Your task to perform on an android device: change the clock display to show seconds Image 0: 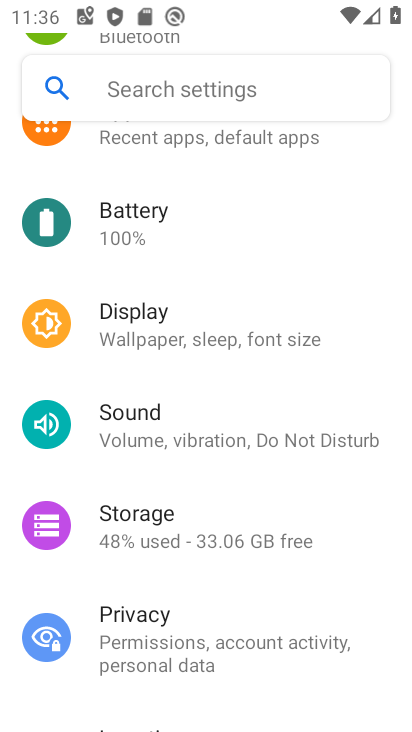
Step 0: press home button
Your task to perform on an android device: change the clock display to show seconds Image 1: 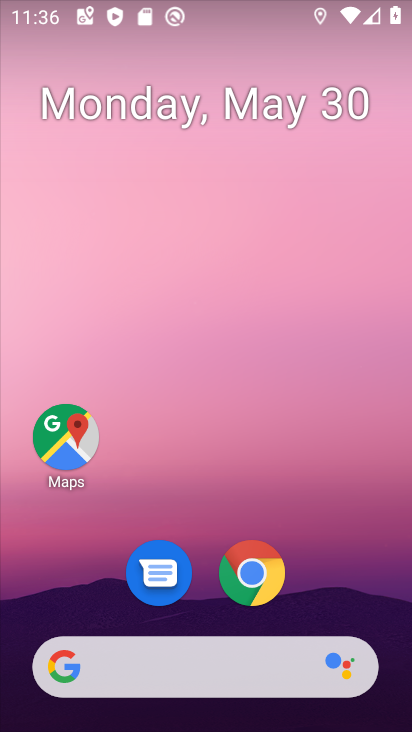
Step 1: drag from (337, 36) to (399, 277)
Your task to perform on an android device: change the clock display to show seconds Image 2: 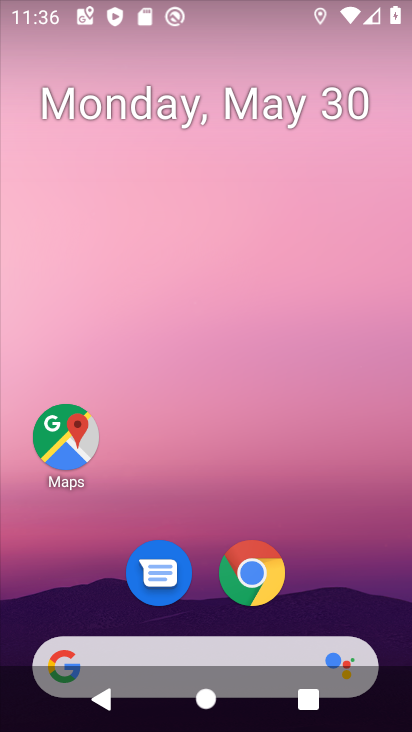
Step 2: drag from (336, 292) to (388, 2)
Your task to perform on an android device: change the clock display to show seconds Image 3: 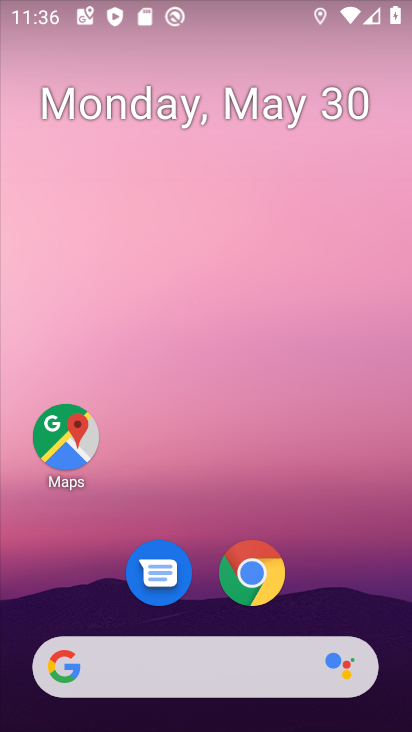
Step 3: drag from (220, 485) to (185, 28)
Your task to perform on an android device: change the clock display to show seconds Image 4: 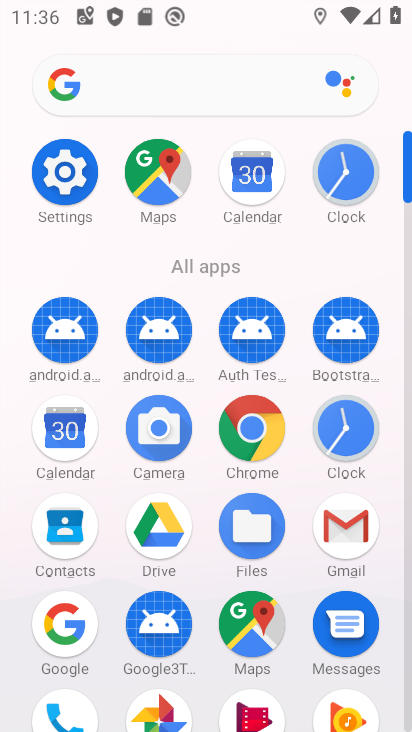
Step 4: click (337, 422)
Your task to perform on an android device: change the clock display to show seconds Image 5: 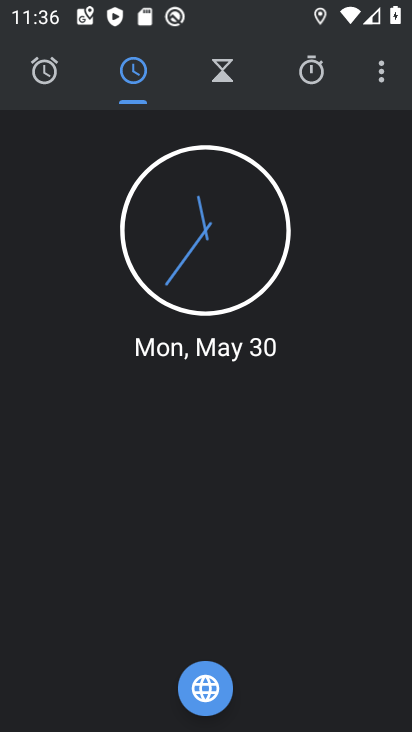
Step 5: click (373, 68)
Your task to perform on an android device: change the clock display to show seconds Image 6: 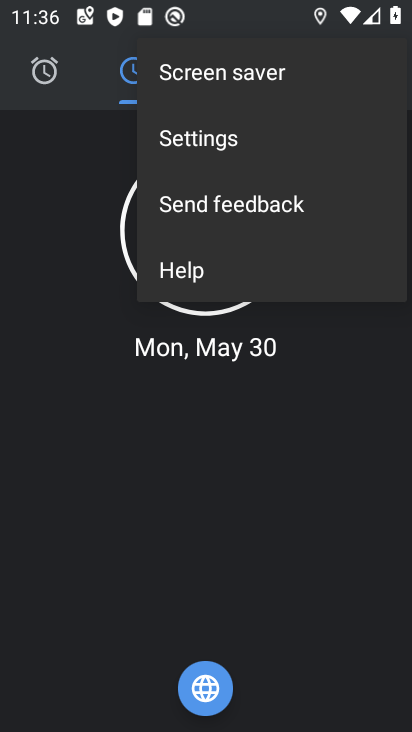
Step 6: click (206, 149)
Your task to perform on an android device: change the clock display to show seconds Image 7: 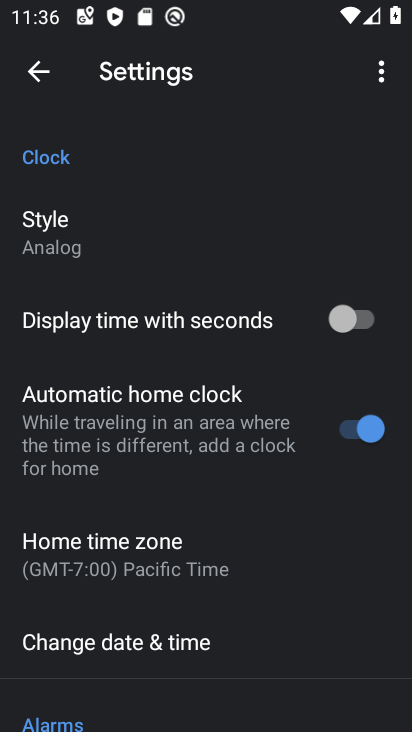
Step 7: click (367, 318)
Your task to perform on an android device: change the clock display to show seconds Image 8: 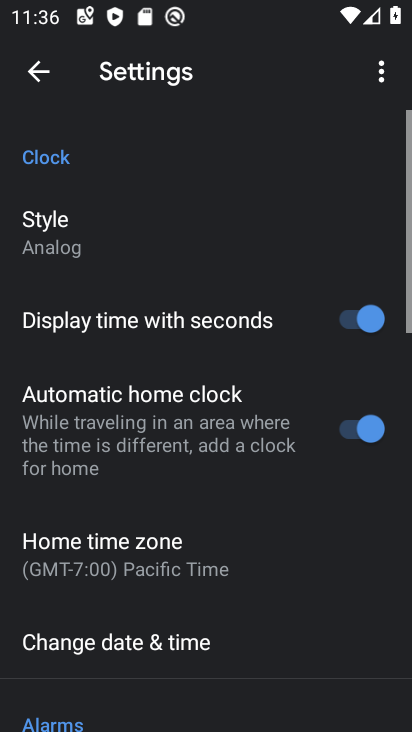
Step 8: task complete